Your task to perform on an android device: Go to battery settings Image 0: 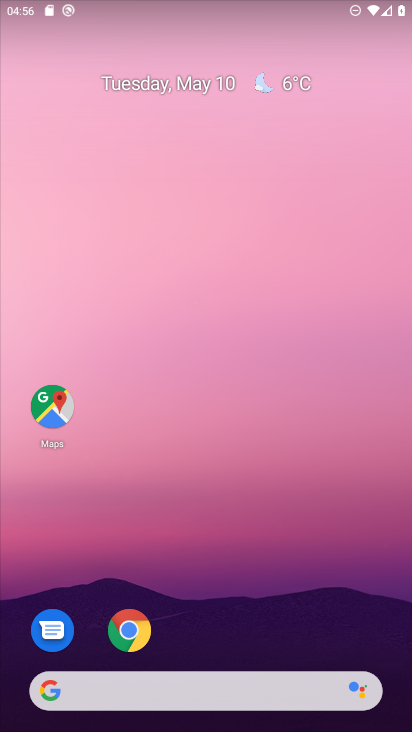
Step 0: drag from (211, 649) to (255, 95)
Your task to perform on an android device: Go to battery settings Image 1: 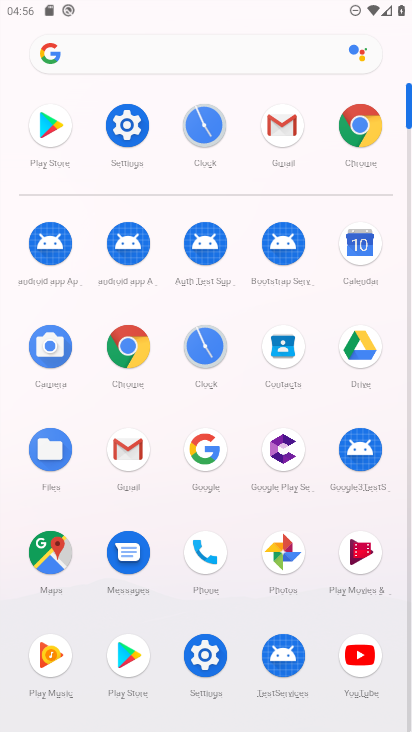
Step 1: click (106, 121)
Your task to perform on an android device: Go to battery settings Image 2: 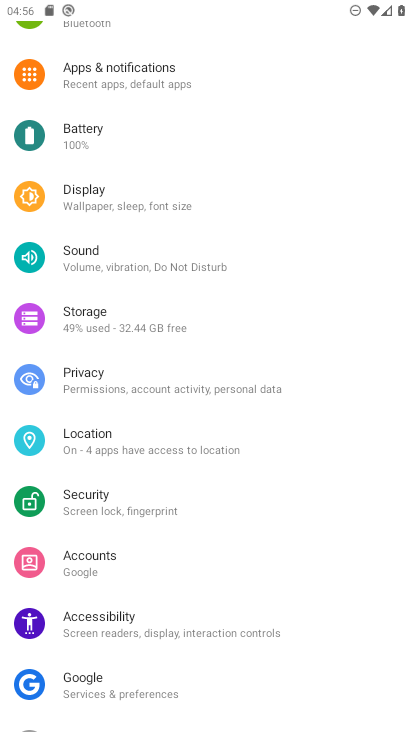
Step 2: click (135, 138)
Your task to perform on an android device: Go to battery settings Image 3: 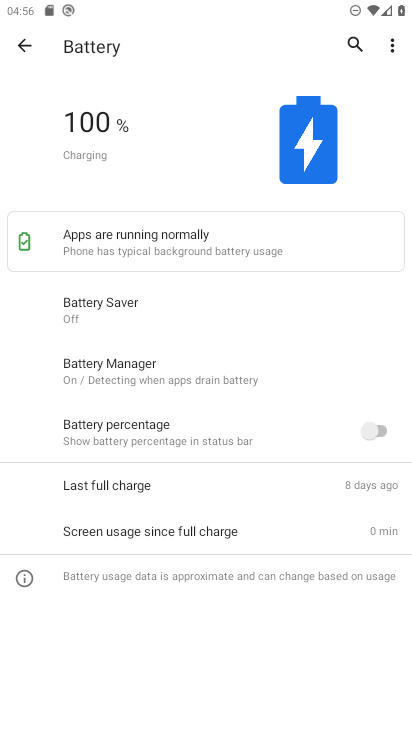
Step 3: click (393, 51)
Your task to perform on an android device: Go to battery settings Image 4: 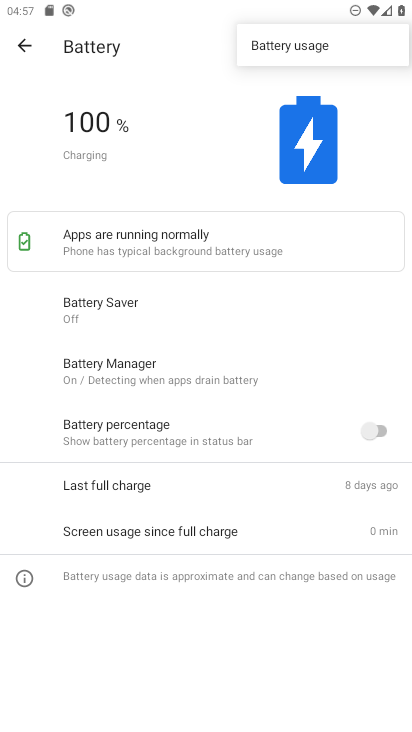
Step 4: task complete